Your task to perform on an android device: Open Chrome and go to the settings page Image 0: 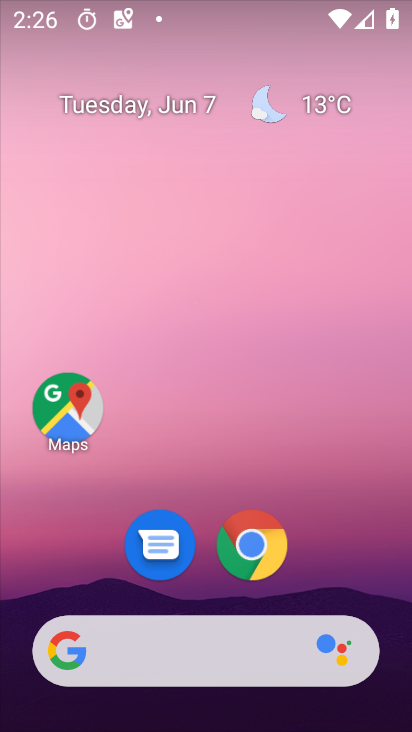
Step 0: click (254, 540)
Your task to perform on an android device: Open Chrome and go to the settings page Image 1: 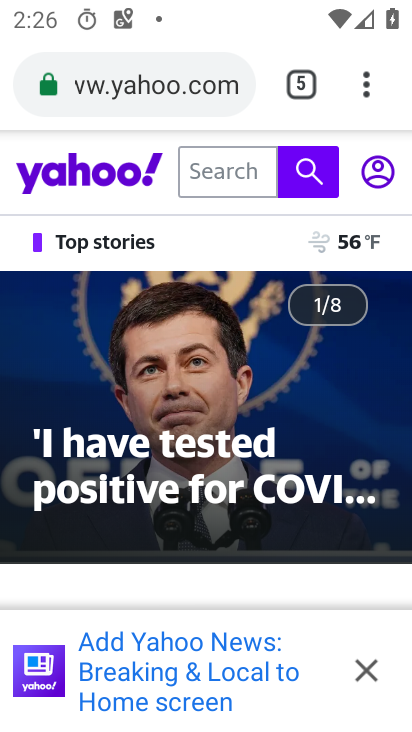
Step 1: click (361, 81)
Your task to perform on an android device: Open Chrome and go to the settings page Image 2: 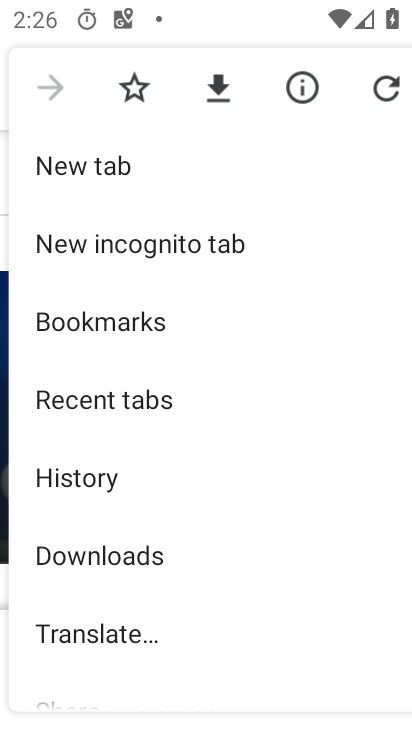
Step 2: drag from (270, 528) to (213, 12)
Your task to perform on an android device: Open Chrome and go to the settings page Image 3: 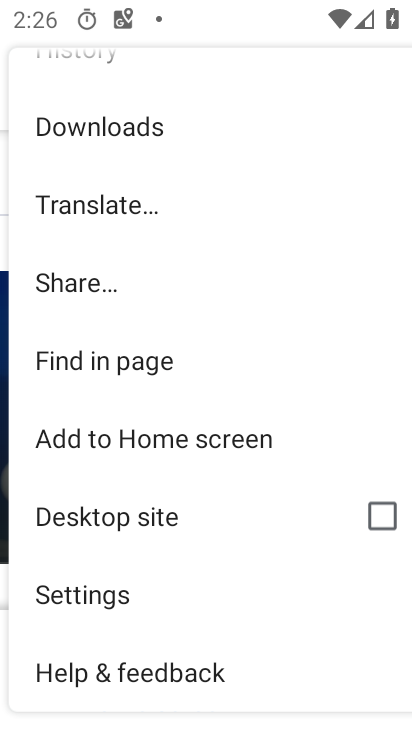
Step 3: click (215, 590)
Your task to perform on an android device: Open Chrome and go to the settings page Image 4: 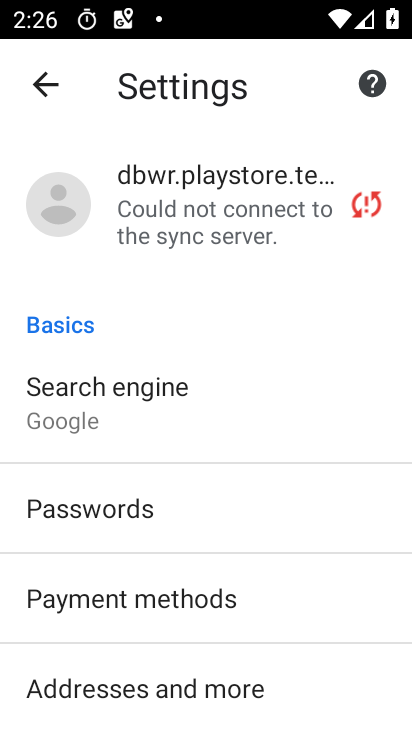
Step 4: task complete